Your task to perform on an android device: star an email in the gmail app Image 0: 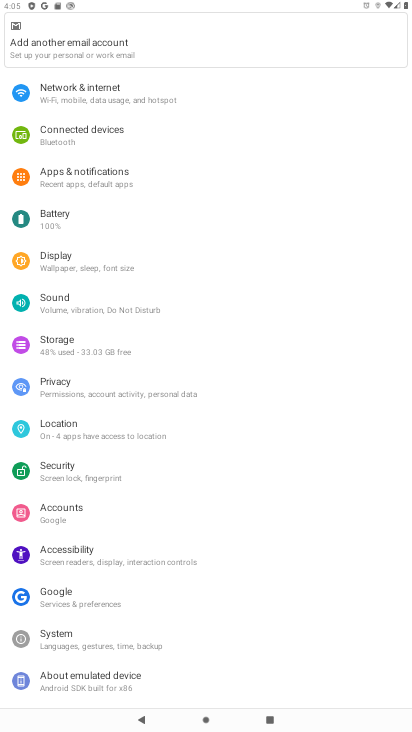
Step 0: press home button
Your task to perform on an android device: star an email in the gmail app Image 1: 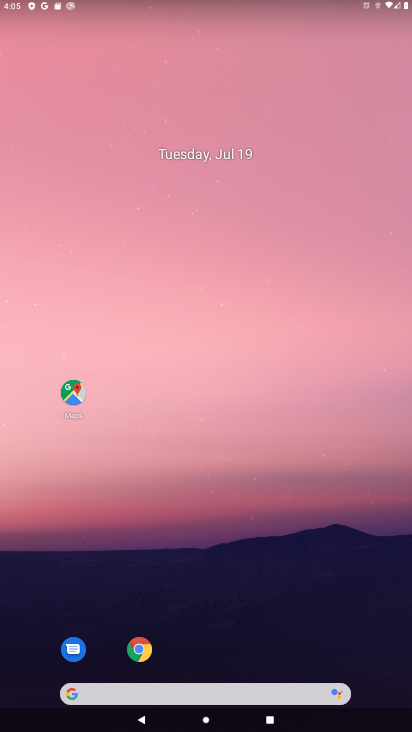
Step 1: drag from (290, 621) to (206, 84)
Your task to perform on an android device: star an email in the gmail app Image 2: 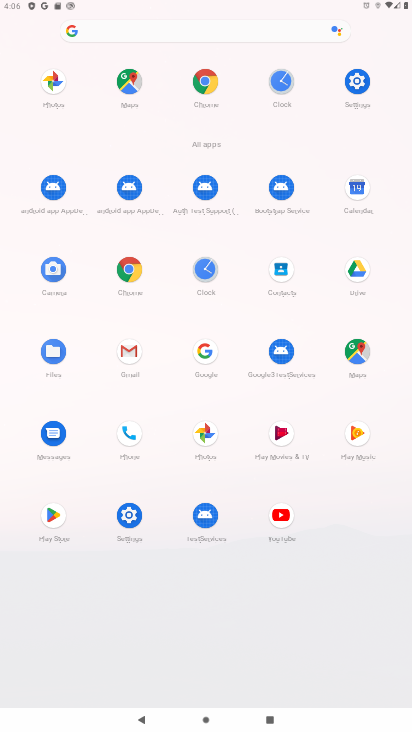
Step 2: click (132, 350)
Your task to perform on an android device: star an email in the gmail app Image 3: 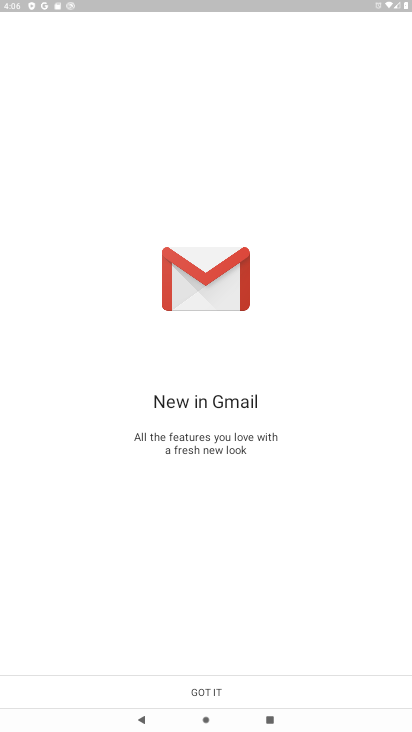
Step 3: click (219, 691)
Your task to perform on an android device: star an email in the gmail app Image 4: 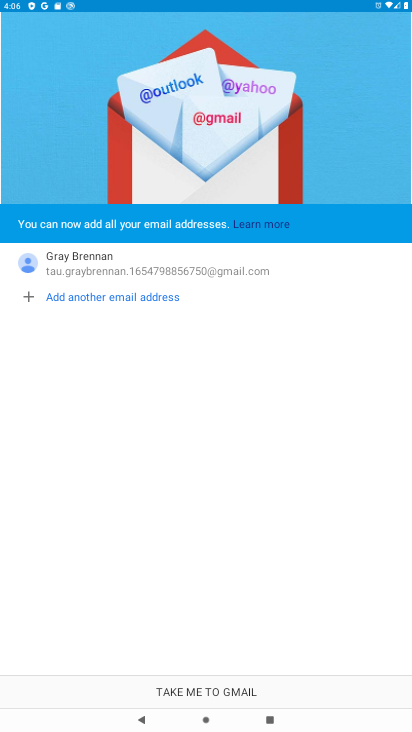
Step 4: click (223, 700)
Your task to perform on an android device: star an email in the gmail app Image 5: 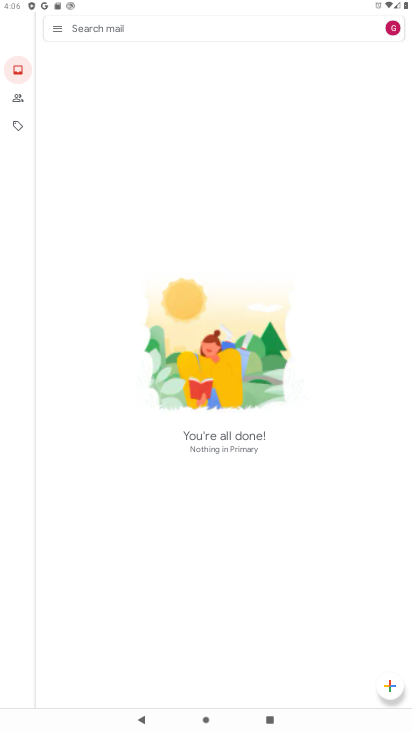
Step 5: click (52, 30)
Your task to perform on an android device: star an email in the gmail app Image 6: 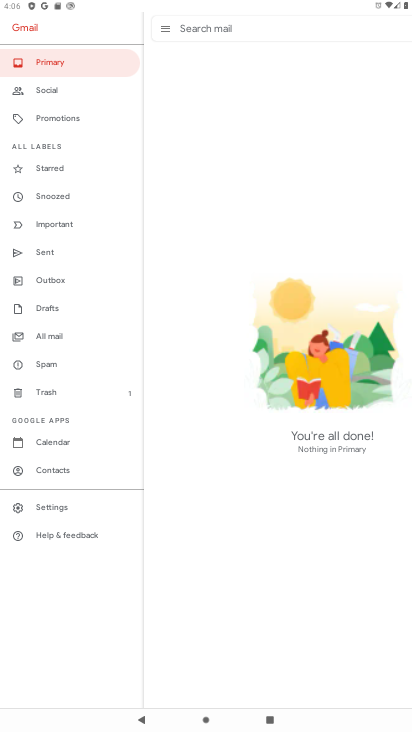
Step 6: click (61, 334)
Your task to perform on an android device: star an email in the gmail app Image 7: 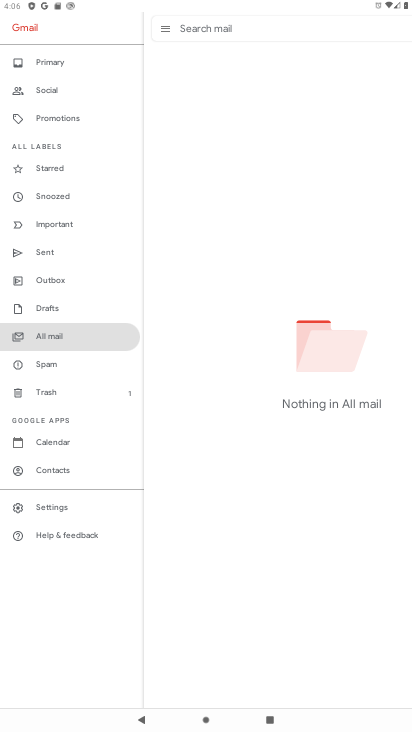
Step 7: task complete